Your task to perform on an android device: toggle javascript in the chrome app Image 0: 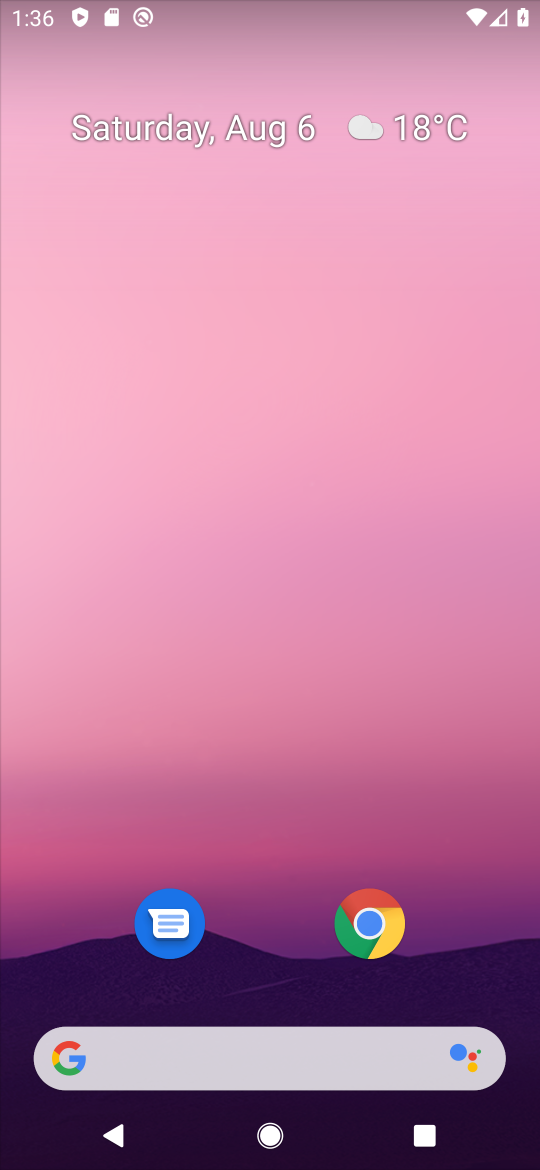
Step 0: drag from (307, 822) to (385, 226)
Your task to perform on an android device: toggle javascript in the chrome app Image 1: 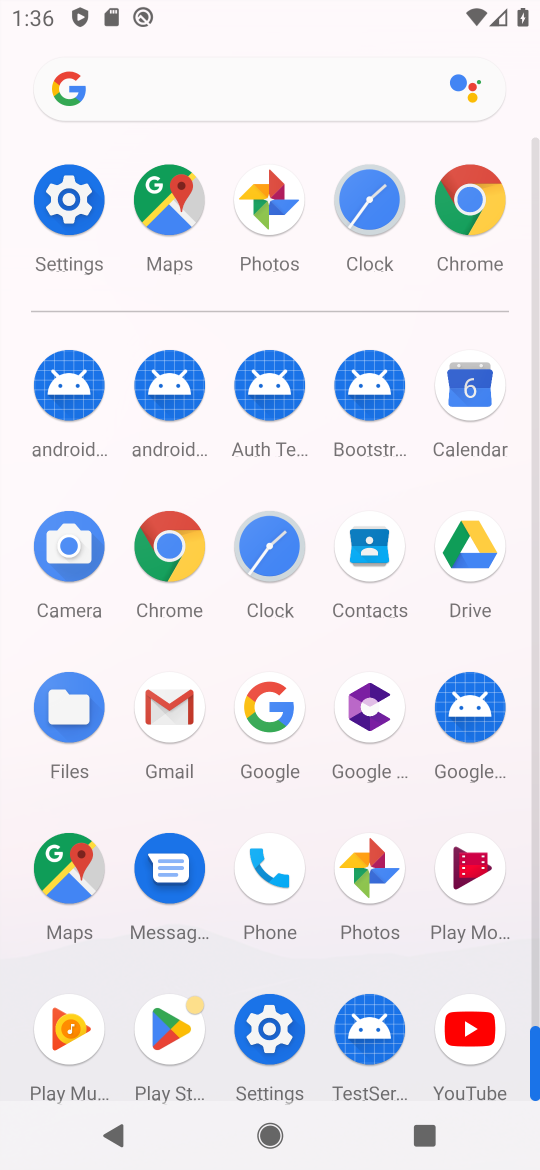
Step 1: click (479, 185)
Your task to perform on an android device: toggle javascript in the chrome app Image 2: 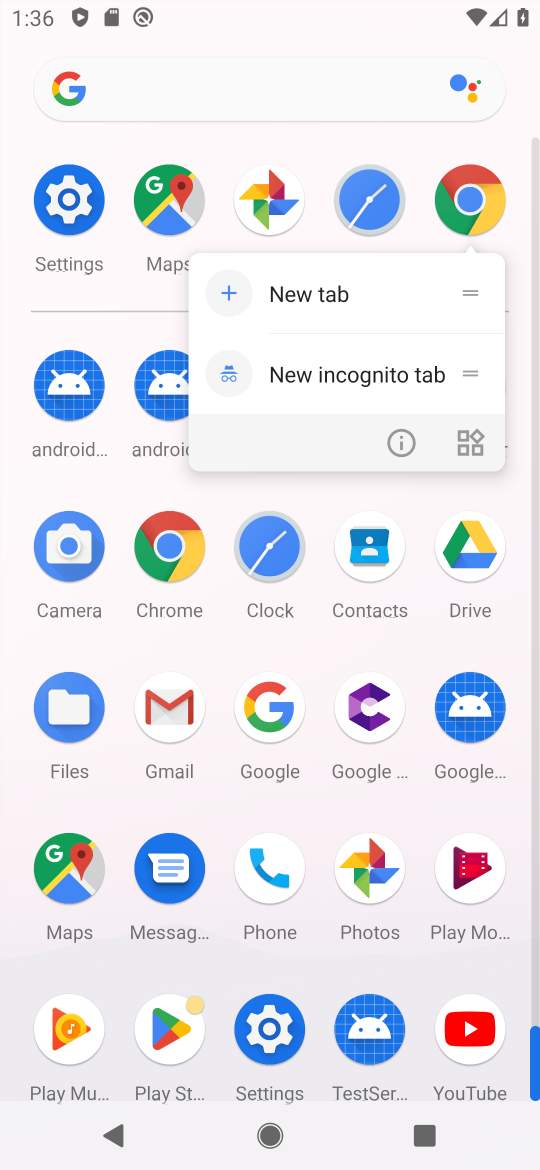
Step 2: click (411, 434)
Your task to perform on an android device: toggle javascript in the chrome app Image 3: 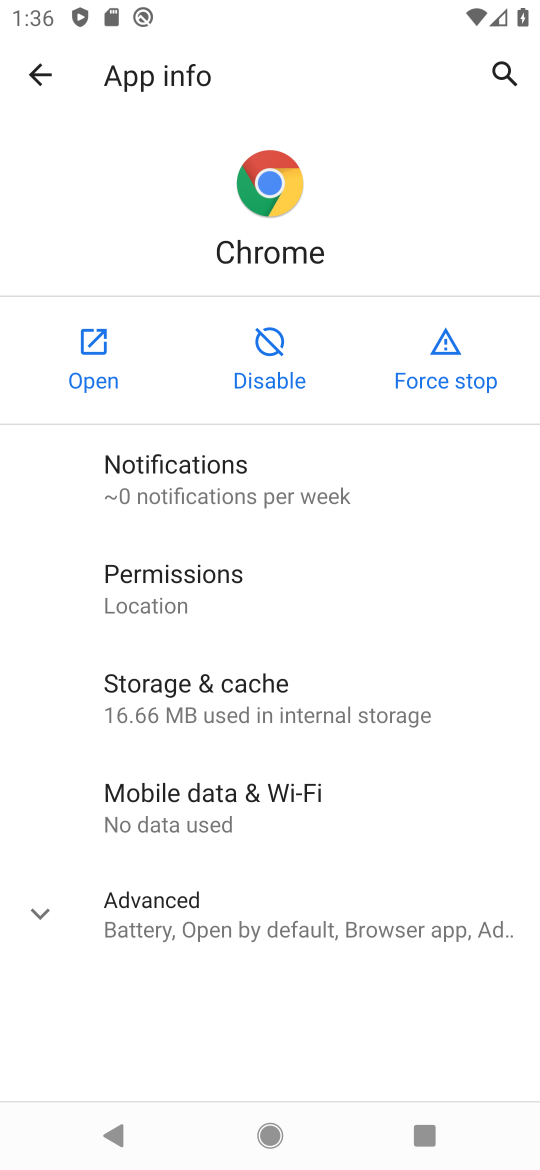
Step 3: click (103, 321)
Your task to perform on an android device: toggle javascript in the chrome app Image 4: 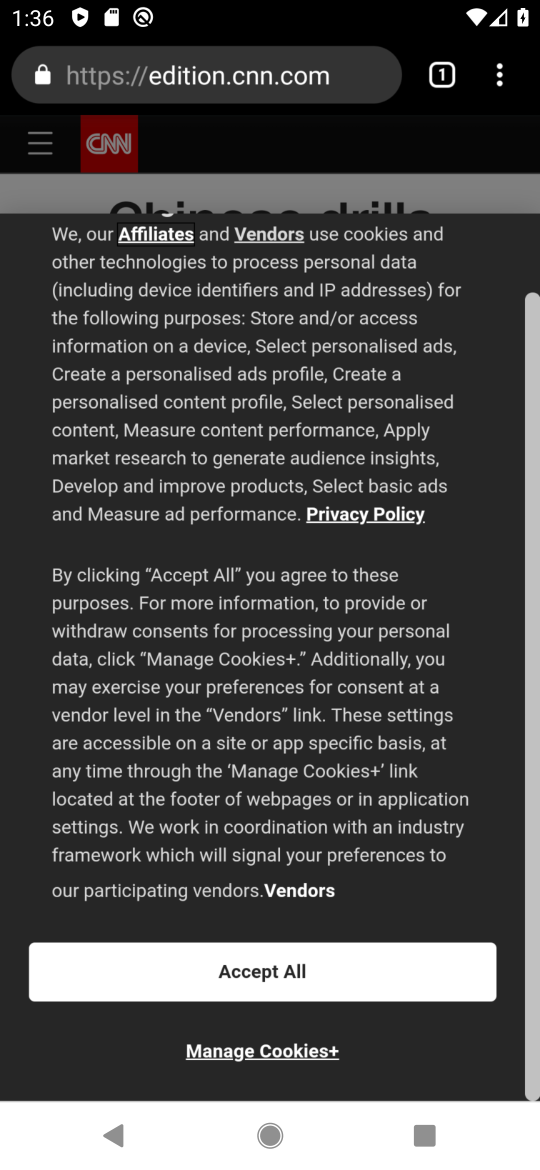
Step 4: drag from (493, 85) to (246, 978)
Your task to perform on an android device: toggle javascript in the chrome app Image 5: 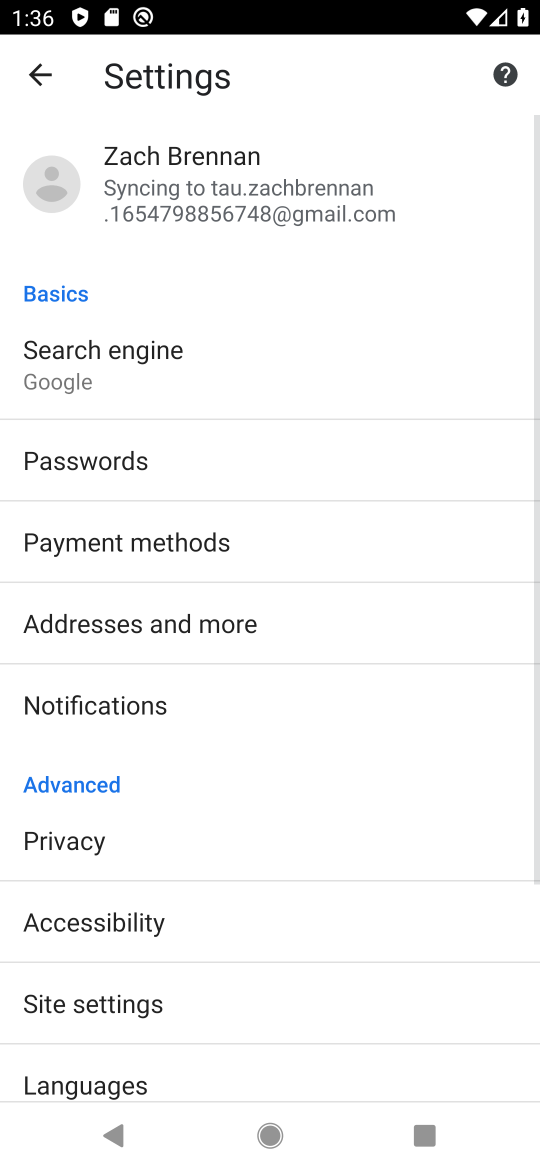
Step 5: click (75, 1013)
Your task to perform on an android device: toggle javascript in the chrome app Image 6: 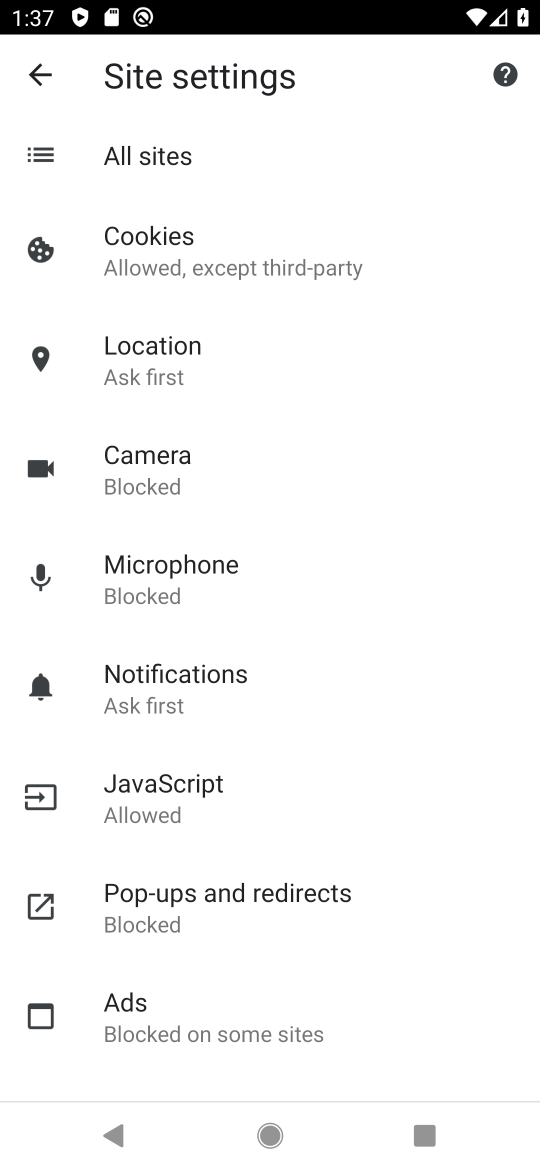
Step 6: click (164, 798)
Your task to perform on an android device: toggle javascript in the chrome app Image 7: 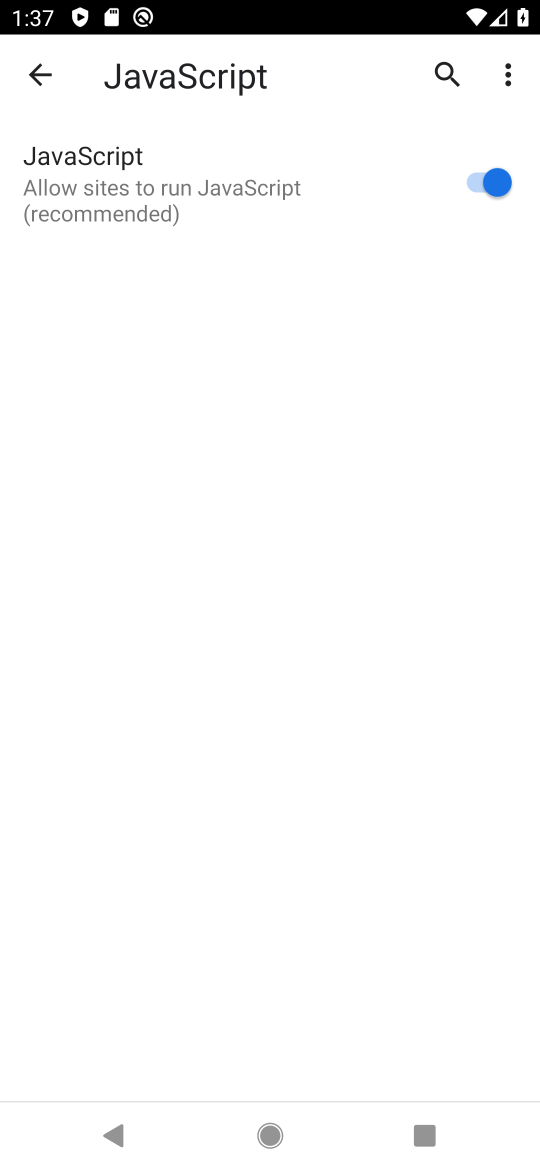
Step 7: click (497, 176)
Your task to perform on an android device: toggle javascript in the chrome app Image 8: 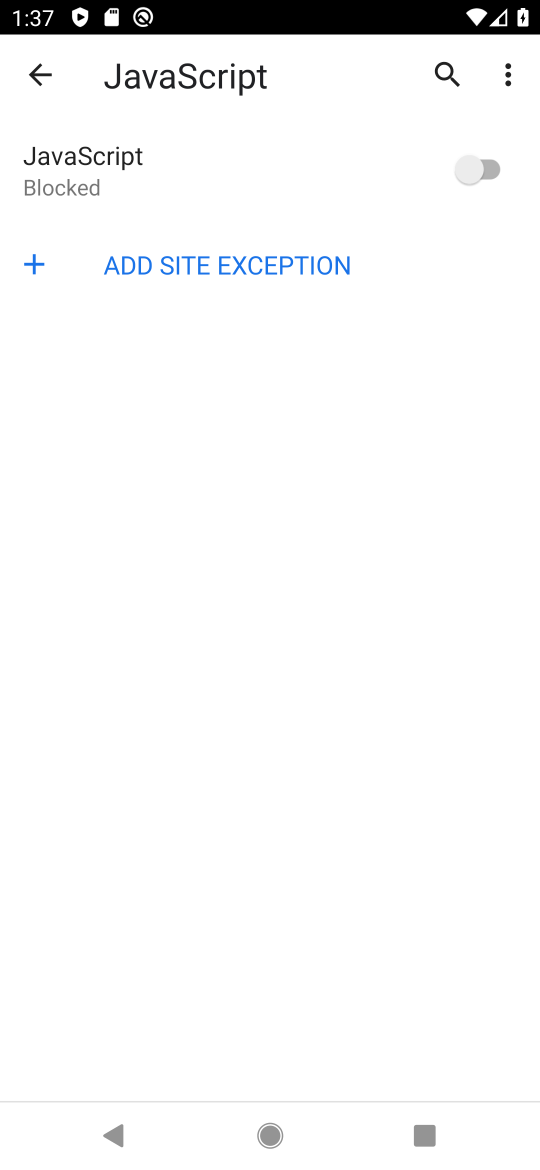
Step 8: task complete